Your task to perform on an android device: Search for seafood restaurants on Google Maps Image 0: 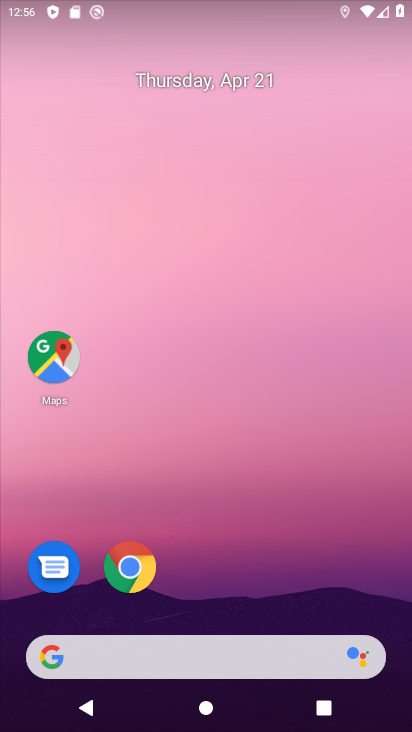
Step 0: click (53, 338)
Your task to perform on an android device: Search for seafood restaurants on Google Maps Image 1: 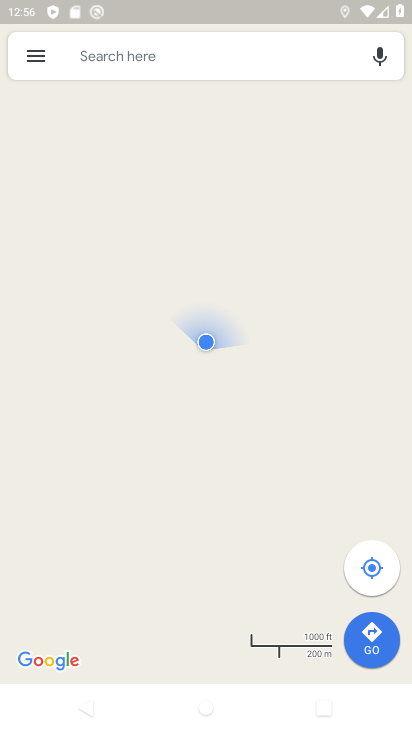
Step 1: click (159, 57)
Your task to perform on an android device: Search for seafood restaurants on Google Maps Image 2: 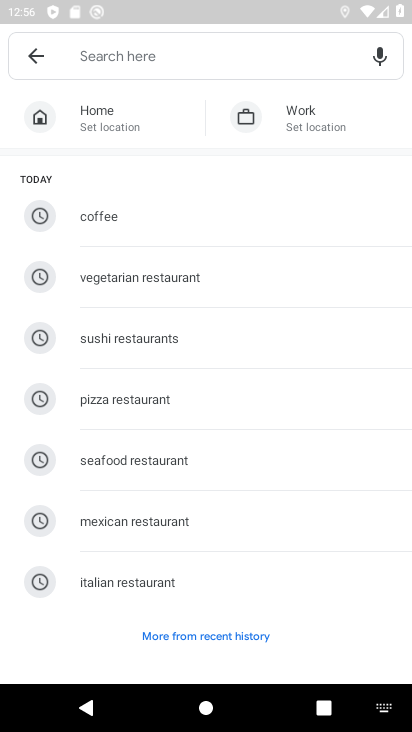
Step 2: click (124, 461)
Your task to perform on an android device: Search for seafood restaurants on Google Maps Image 3: 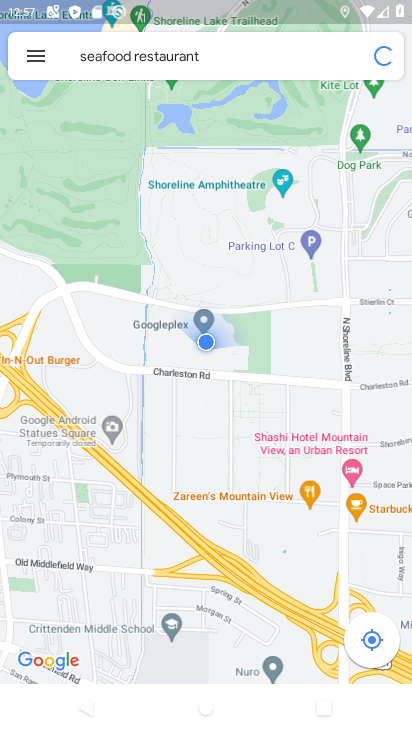
Step 3: task complete